Your task to perform on an android device: clear history in the chrome app Image 0: 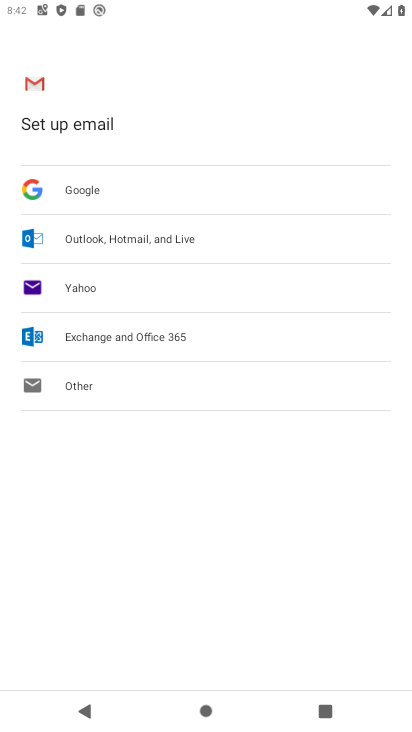
Step 0: press home button
Your task to perform on an android device: clear history in the chrome app Image 1: 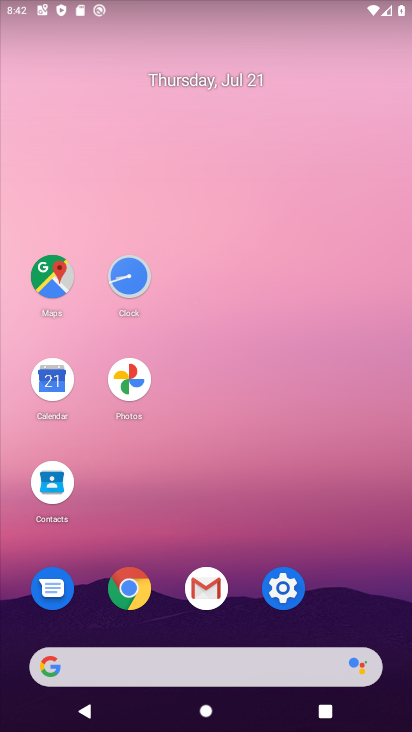
Step 1: click (127, 581)
Your task to perform on an android device: clear history in the chrome app Image 2: 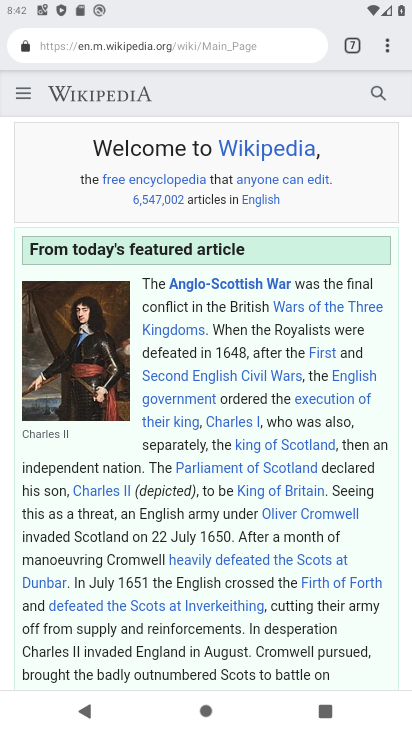
Step 2: click (390, 46)
Your task to perform on an android device: clear history in the chrome app Image 3: 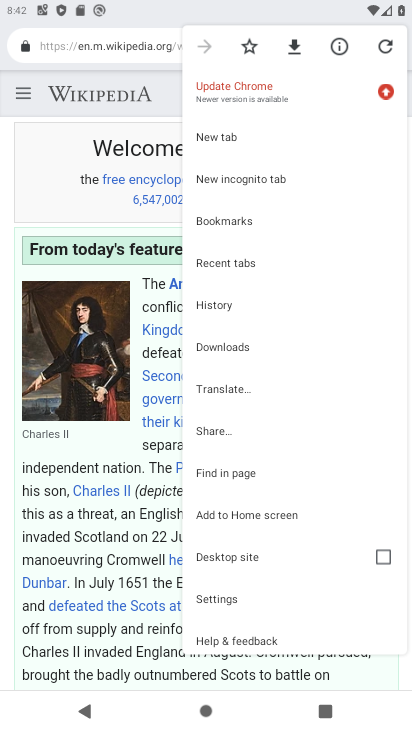
Step 3: click (215, 303)
Your task to perform on an android device: clear history in the chrome app Image 4: 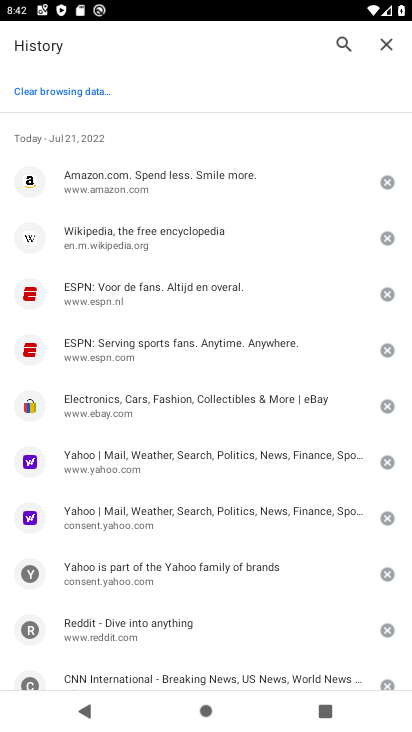
Step 4: click (61, 86)
Your task to perform on an android device: clear history in the chrome app Image 5: 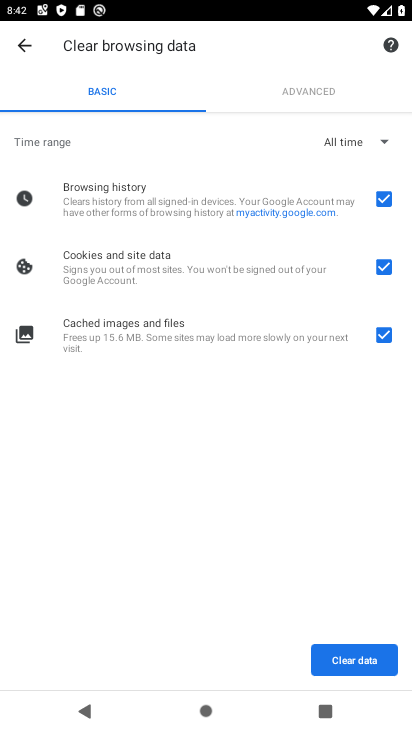
Step 5: click (387, 265)
Your task to perform on an android device: clear history in the chrome app Image 6: 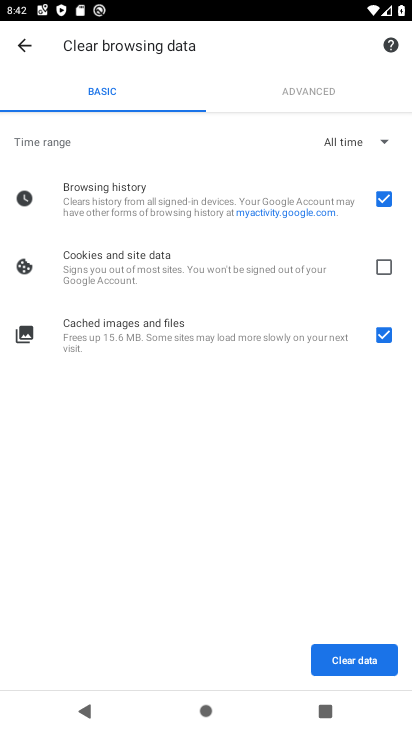
Step 6: click (387, 332)
Your task to perform on an android device: clear history in the chrome app Image 7: 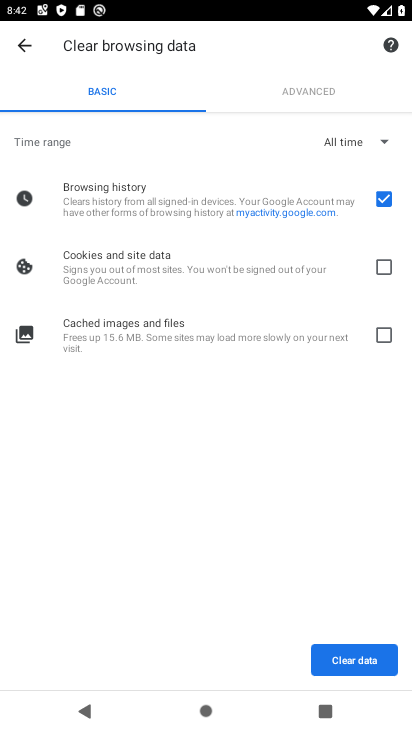
Step 7: click (338, 670)
Your task to perform on an android device: clear history in the chrome app Image 8: 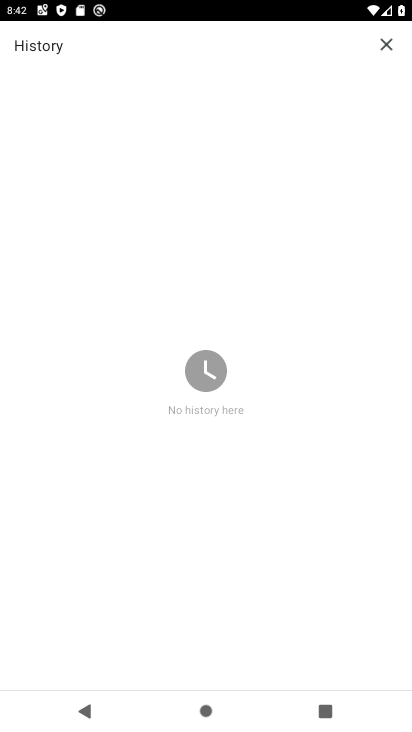
Step 8: task complete